Your task to perform on an android device: turn on translation in the chrome app Image 0: 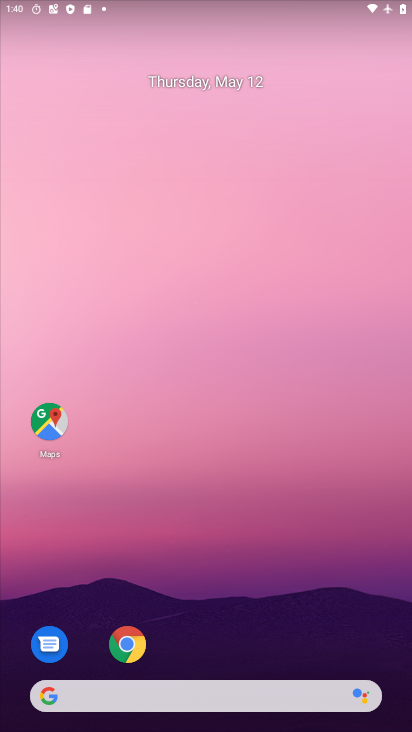
Step 0: click (125, 644)
Your task to perform on an android device: turn on translation in the chrome app Image 1: 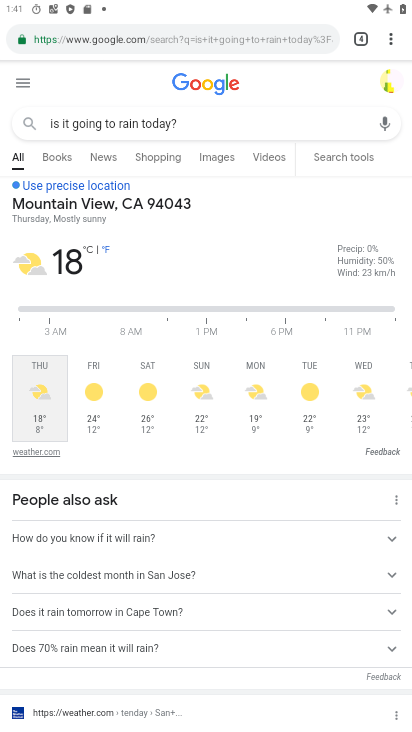
Step 1: click (393, 43)
Your task to perform on an android device: turn on translation in the chrome app Image 2: 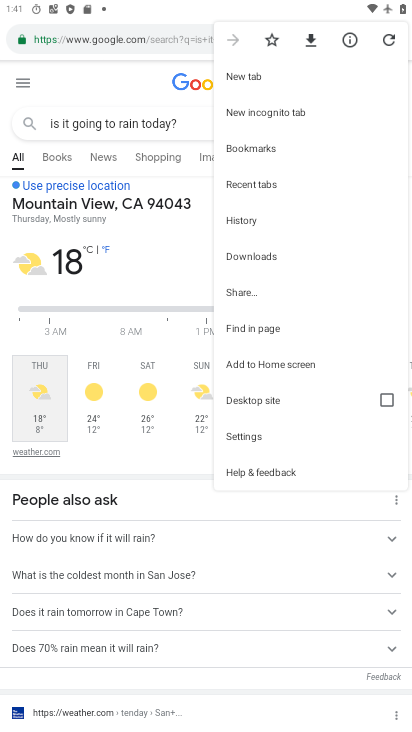
Step 2: click (251, 438)
Your task to perform on an android device: turn on translation in the chrome app Image 3: 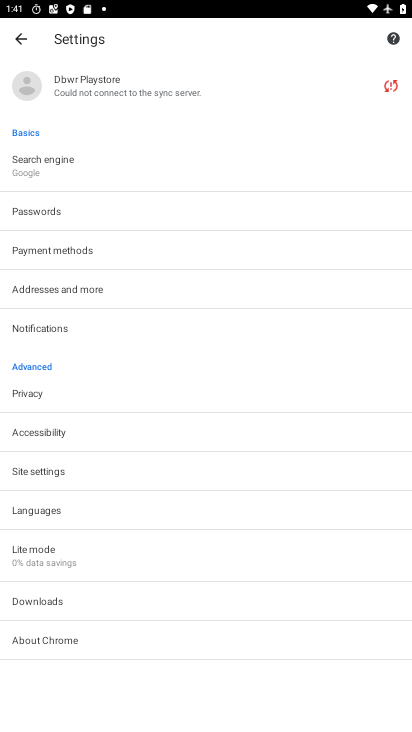
Step 3: click (150, 514)
Your task to perform on an android device: turn on translation in the chrome app Image 4: 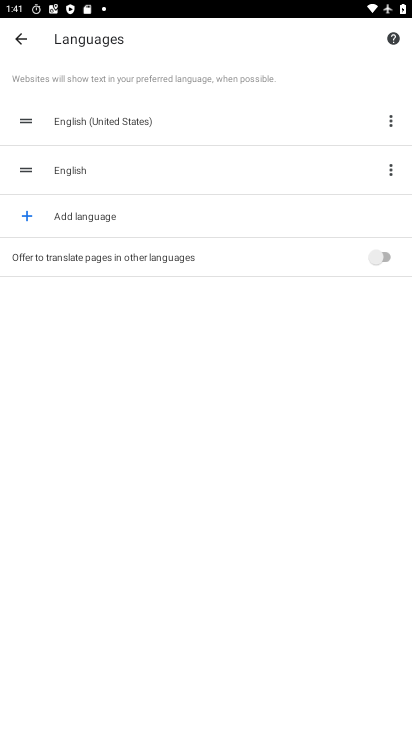
Step 4: click (256, 256)
Your task to perform on an android device: turn on translation in the chrome app Image 5: 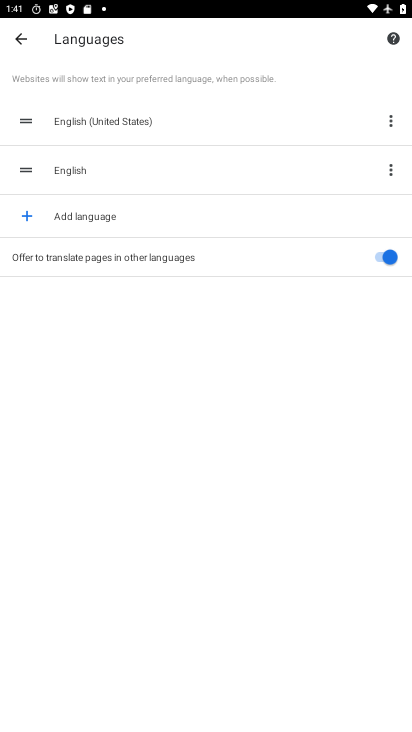
Step 5: task complete